Your task to perform on an android device: delete browsing data in the chrome app Image 0: 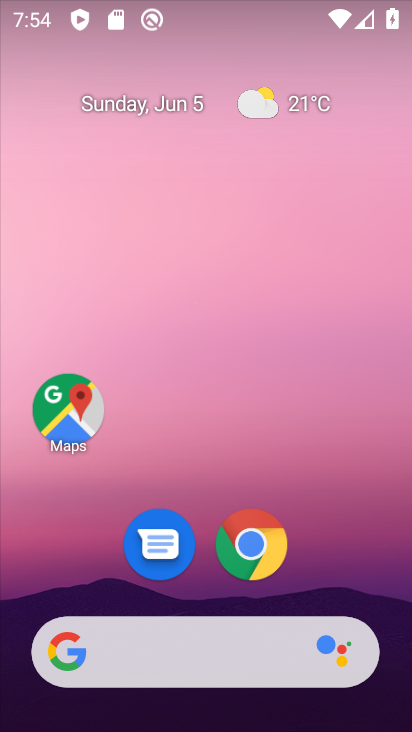
Step 0: click (252, 547)
Your task to perform on an android device: delete browsing data in the chrome app Image 1: 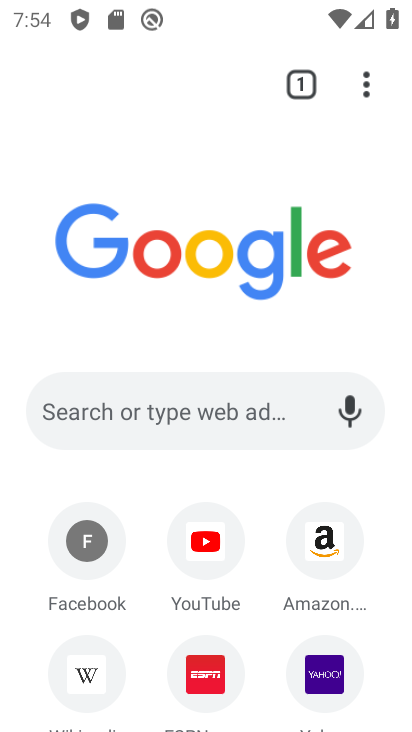
Step 1: click (361, 82)
Your task to perform on an android device: delete browsing data in the chrome app Image 2: 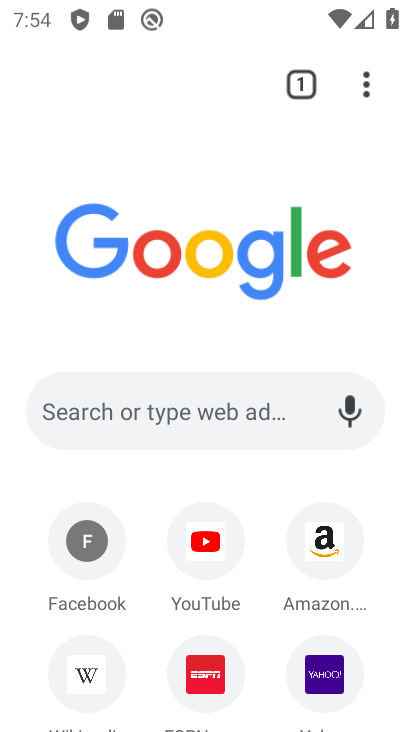
Step 2: click (364, 81)
Your task to perform on an android device: delete browsing data in the chrome app Image 3: 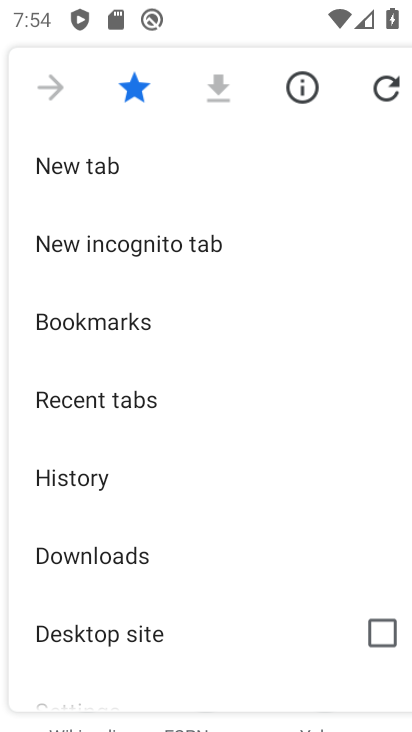
Step 3: drag from (256, 611) to (236, 231)
Your task to perform on an android device: delete browsing data in the chrome app Image 4: 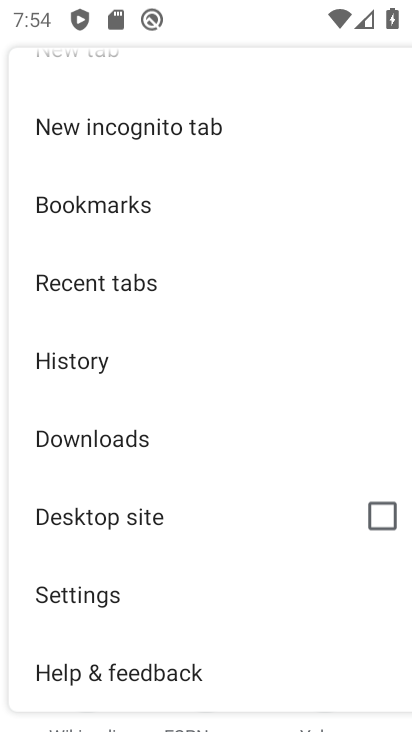
Step 4: click (72, 355)
Your task to perform on an android device: delete browsing data in the chrome app Image 5: 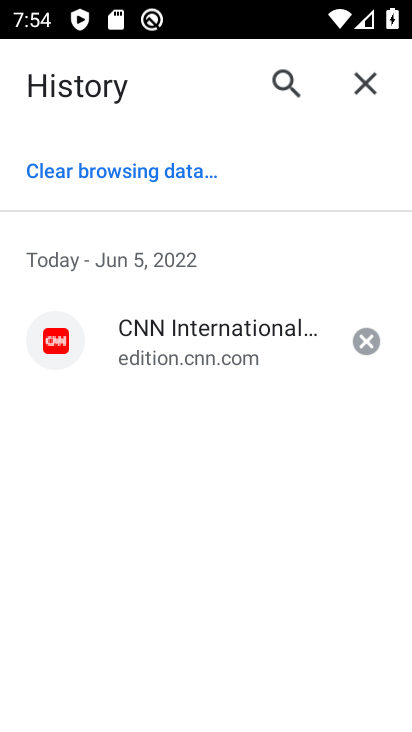
Step 5: click (125, 165)
Your task to perform on an android device: delete browsing data in the chrome app Image 6: 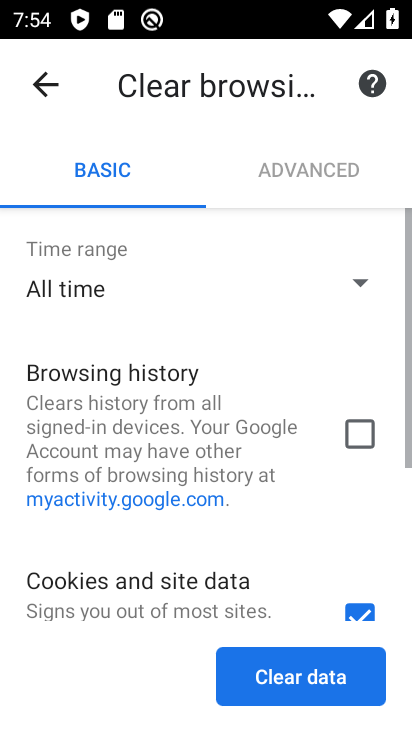
Step 6: click (350, 436)
Your task to perform on an android device: delete browsing data in the chrome app Image 7: 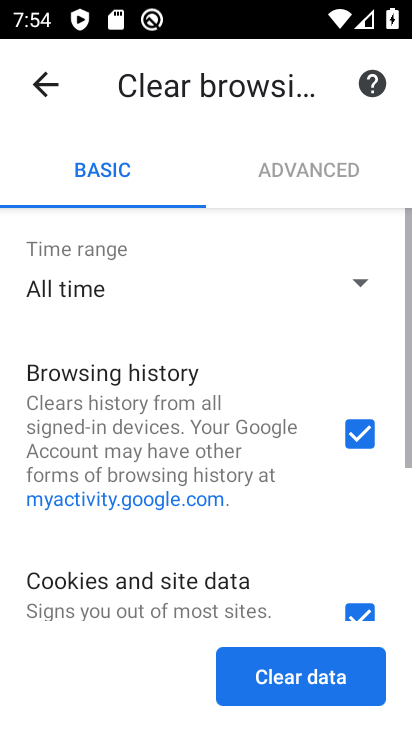
Step 7: click (295, 677)
Your task to perform on an android device: delete browsing data in the chrome app Image 8: 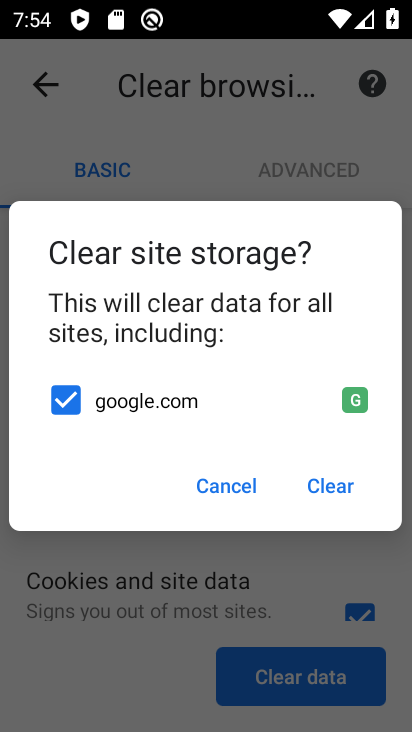
Step 8: click (330, 491)
Your task to perform on an android device: delete browsing data in the chrome app Image 9: 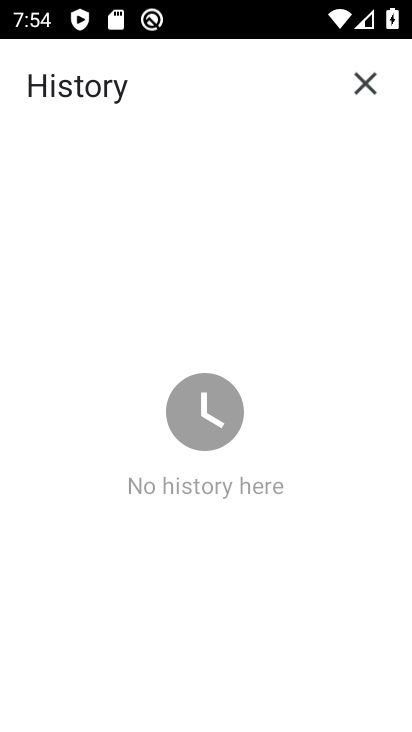
Step 9: task complete